Your task to perform on an android device: Go to notification settings Image 0: 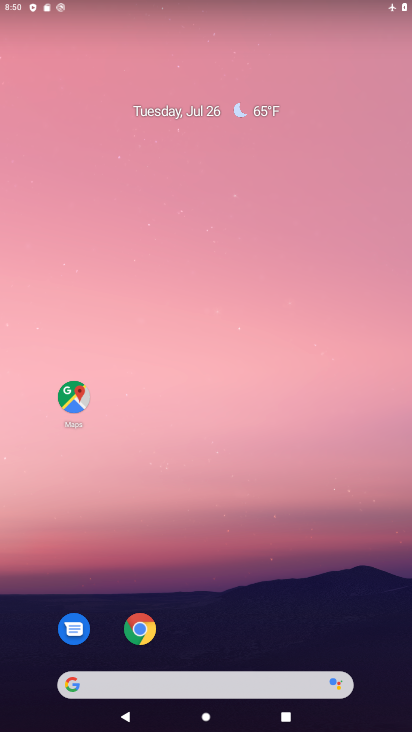
Step 0: drag from (280, 595) to (253, 70)
Your task to perform on an android device: Go to notification settings Image 1: 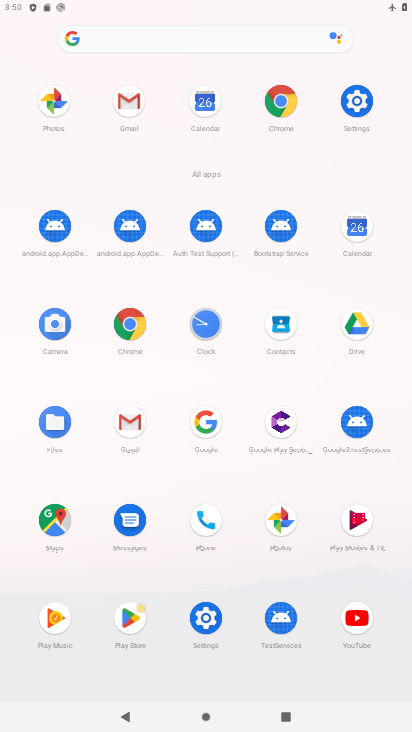
Step 1: click (366, 93)
Your task to perform on an android device: Go to notification settings Image 2: 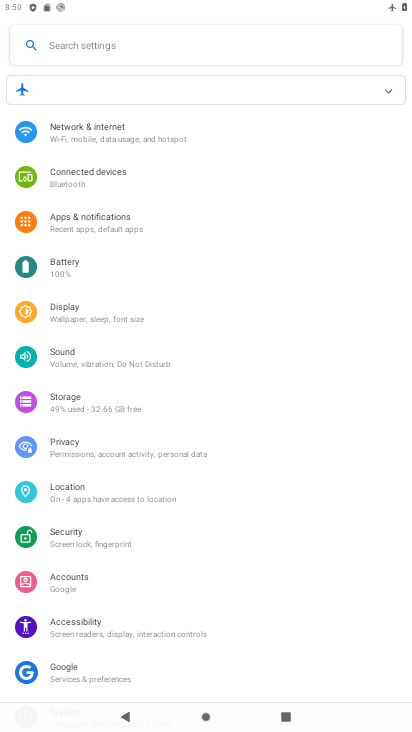
Step 2: click (114, 233)
Your task to perform on an android device: Go to notification settings Image 3: 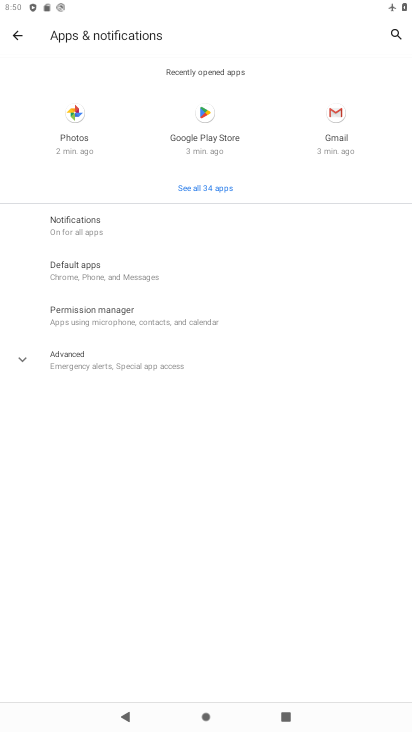
Step 3: click (90, 223)
Your task to perform on an android device: Go to notification settings Image 4: 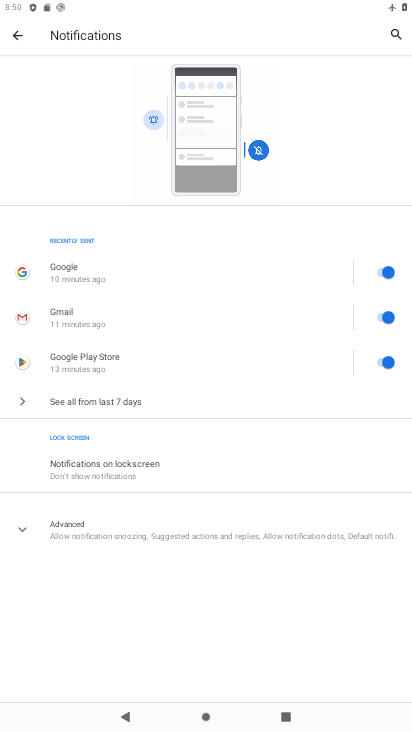
Step 4: task complete